Your task to perform on an android device: turn on sleep mode Image 0: 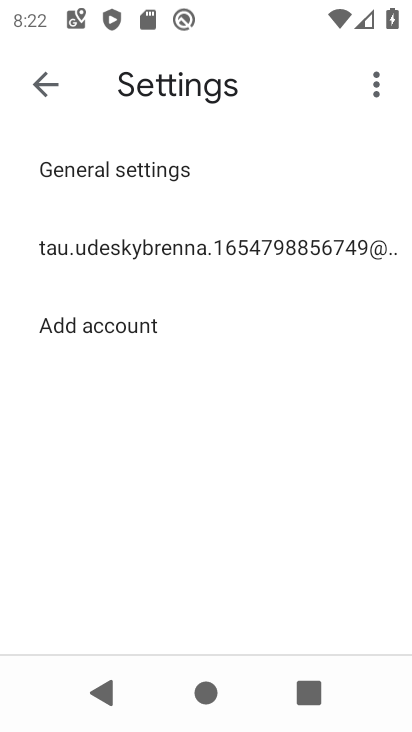
Step 0: press home button
Your task to perform on an android device: turn on sleep mode Image 1: 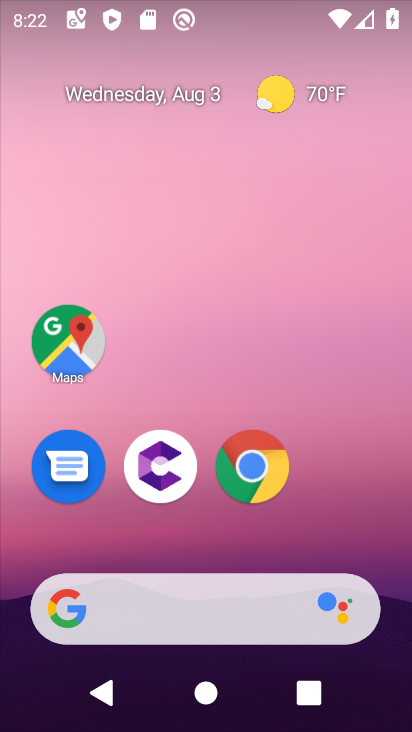
Step 1: drag from (363, 493) to (411, 141)
Your task to perform on an android device: turn on sleep mode Image 2: 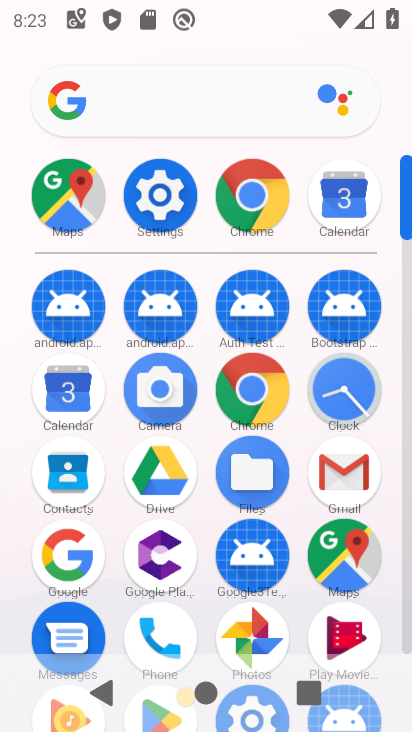
Step 2: click (182, 179)
Your task to perform on an android device: turn on sleep mode Image 3: 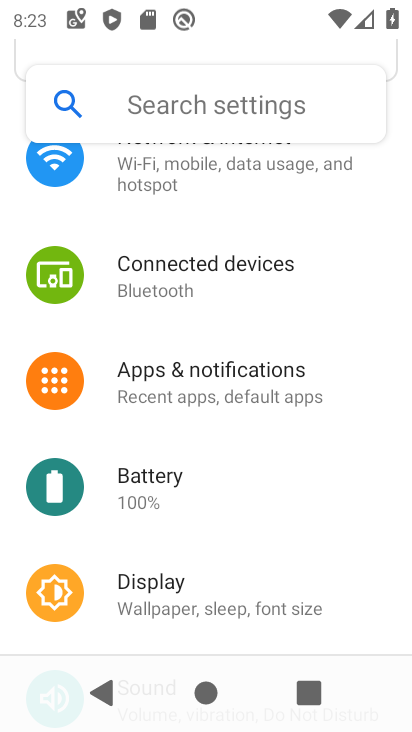
Step 3: drag from (322, 538) to (365, 348)
Your task to perform on an android device: turn on sleep mode Image 4: 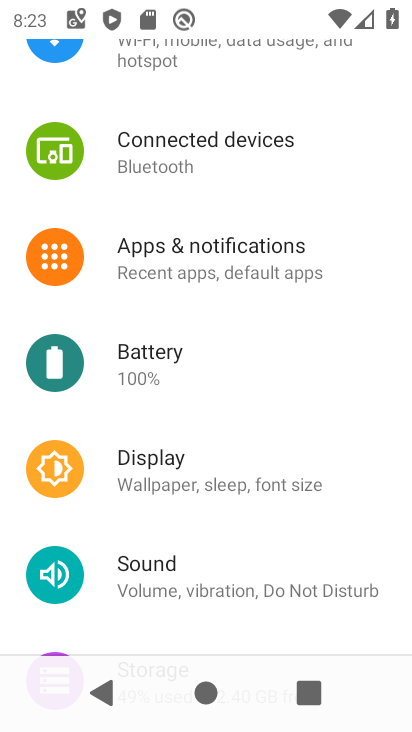
Step 4: click (162, 368)
Your task to perform on an android device: turn on sleep mode Image 5: 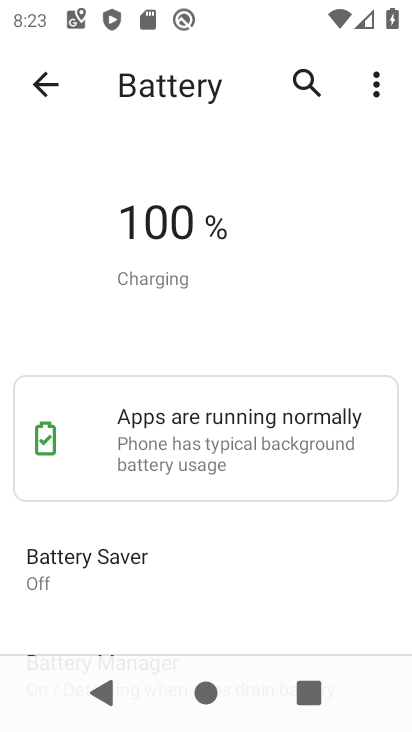
Step 5: click (56, 70)
Your task to perform on an android device: turn on sleep mode Image 6: 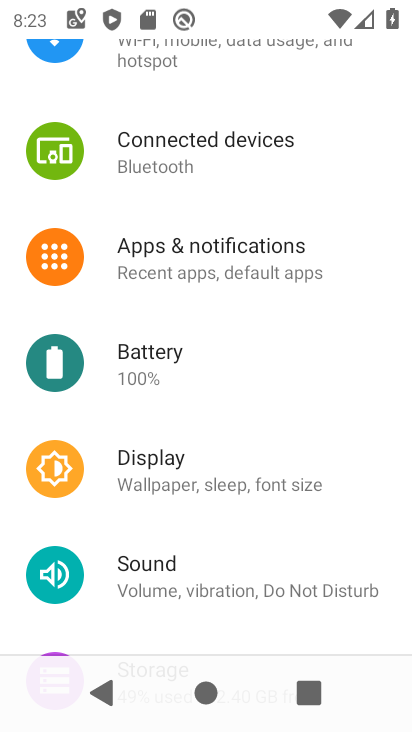
Step 6: click (170, 471)
Your task to perform on an android device: turn on sleep mode Image 7: 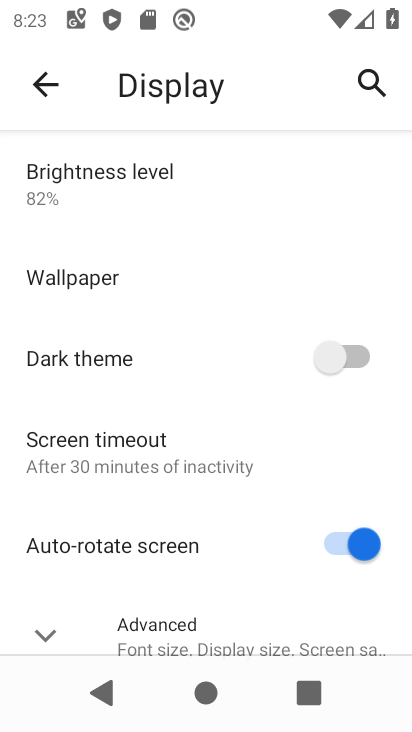
Step 7: click (144, 447)
Your task to perform on an android device: turn on sleep mode Image 8: 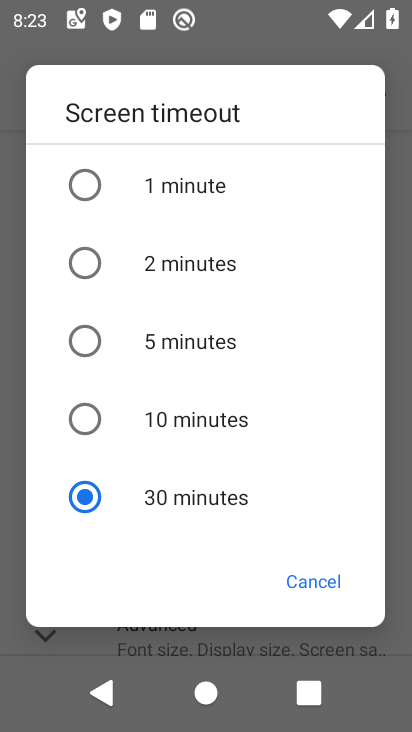
Step 8: task complete